Your task to perform on an android device: set the timer Image 0: 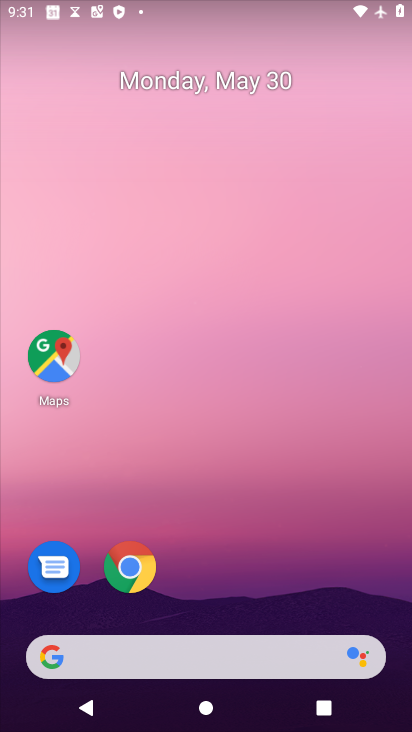
Step 0: click (270, 97)
Your task to perform on an android device: set the timer Image 1: 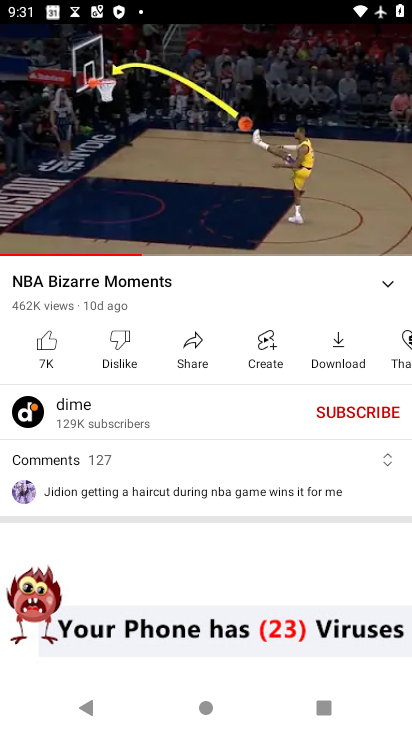
Step 1: press home button
Your task to perform on an android device: set the timer Image 2: 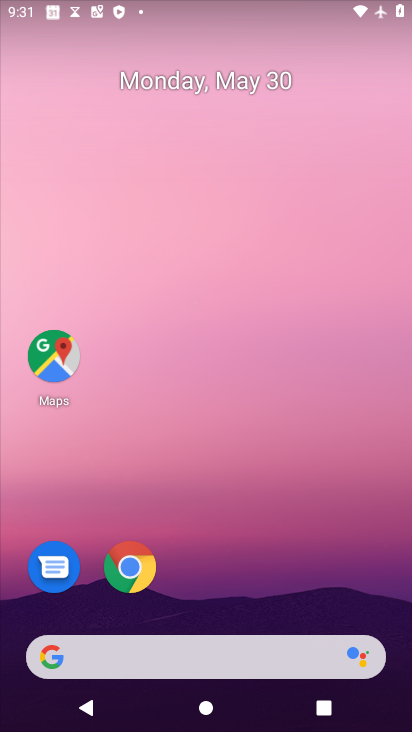
Step 2: drag from (233, 607) to (224, 190)
Your task to perform on an android device: set the timer Image 3: 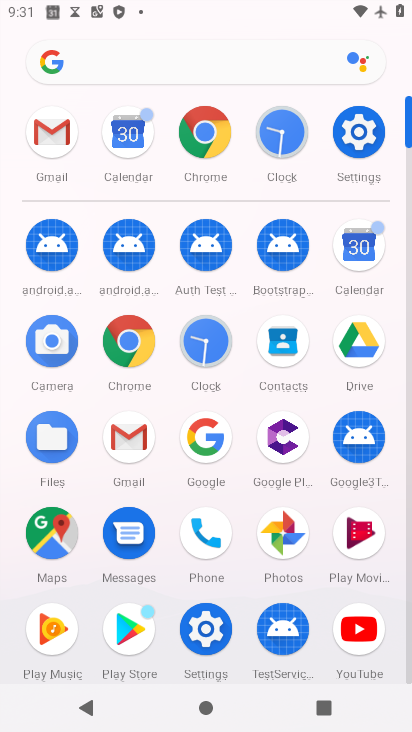
Step 3: click (292, 143)
Your task to perform on an android device: set the timer Image 4: 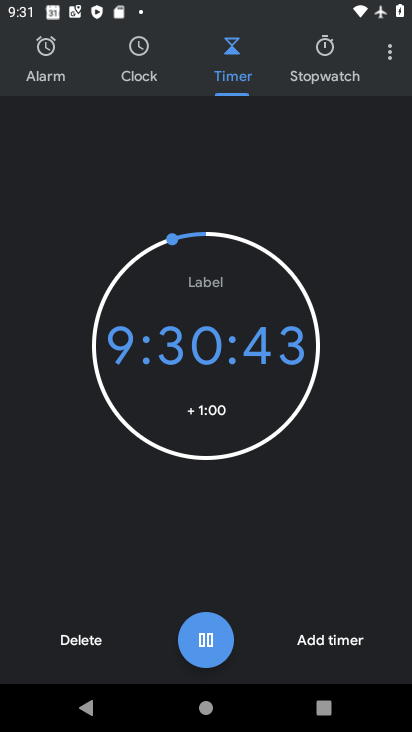
Step 4: task complete